Your task to perform on an android device: Go to Amazon Image 0: 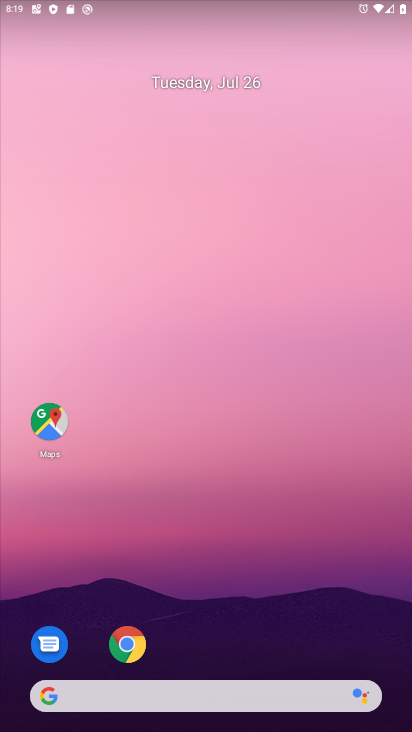
Step 0: drag from (232, 631) to (252, 231)
Your task to perform on an android device: Go to Amazon Image 1: 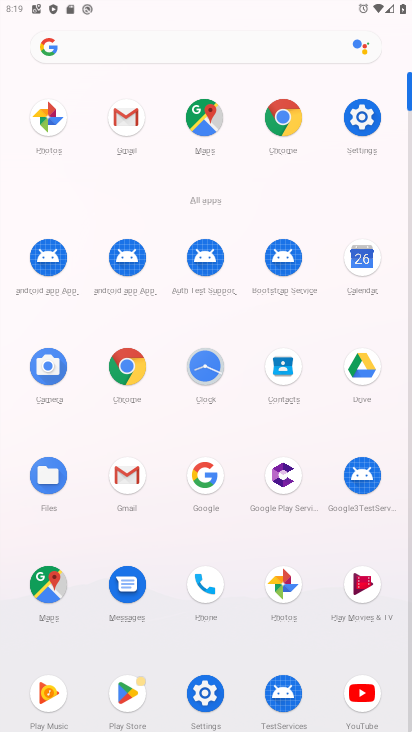
Step 1: click (123, 380)
Your task to perform on an android device: Go to Amazon Image 2: 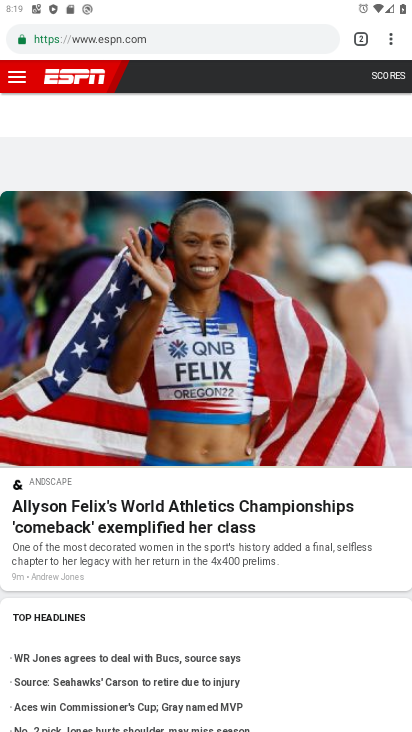
Step 2: click (391, 43)
Your task to perform on an android device: Go to Amazon Image 3: 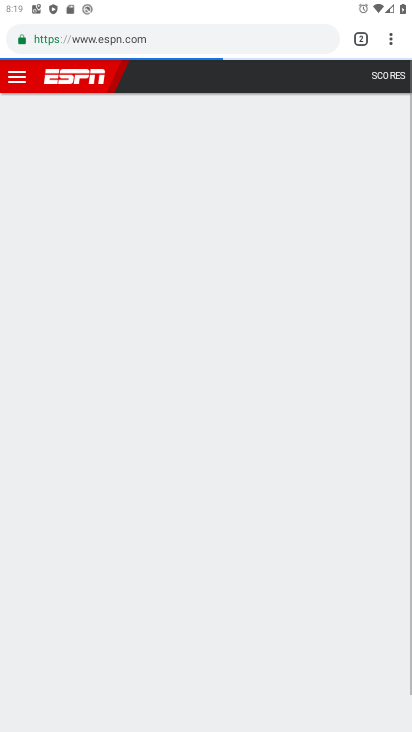
Step 3: click (391, 43)
Your task to perform on an android device: Go to Amazon Image 4: 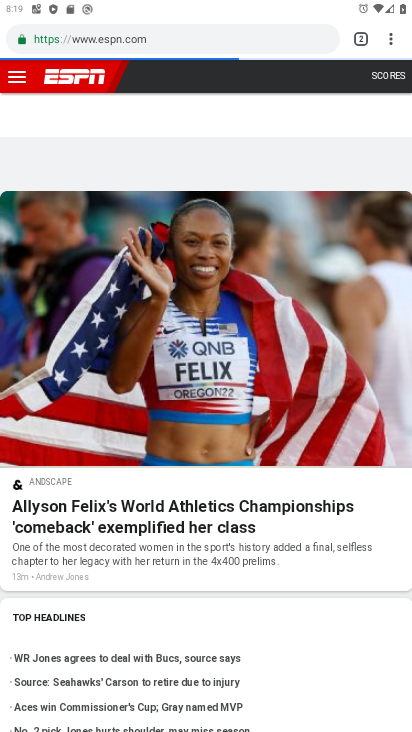
Step 4: click (391, 43)
Your task to perform on an android device: Go to Amazon Image 5: 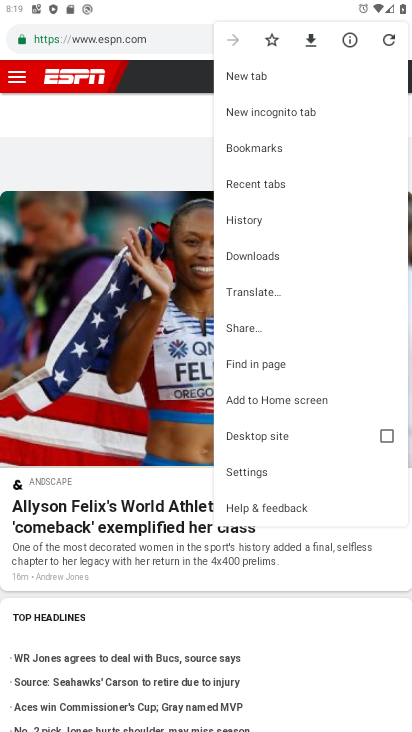
Step 5: click (239, 74)
Your task to perform on an android device: Go to Amazon Image 6: 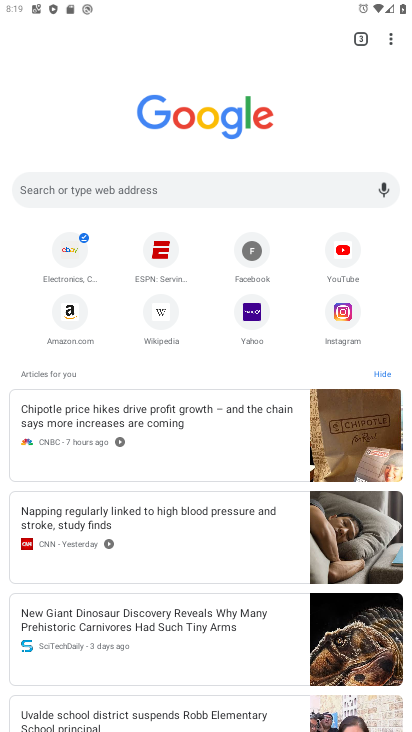
Step 6: click (57, 314)
Your task to perform on an android device: Go to Amazon Image 7: 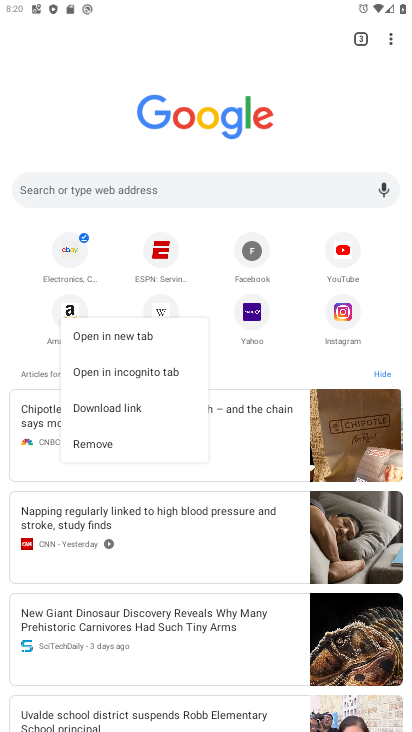
Step 7: click (67, 304)
Your task to perform on an android device: Go to Amazon Image 8: 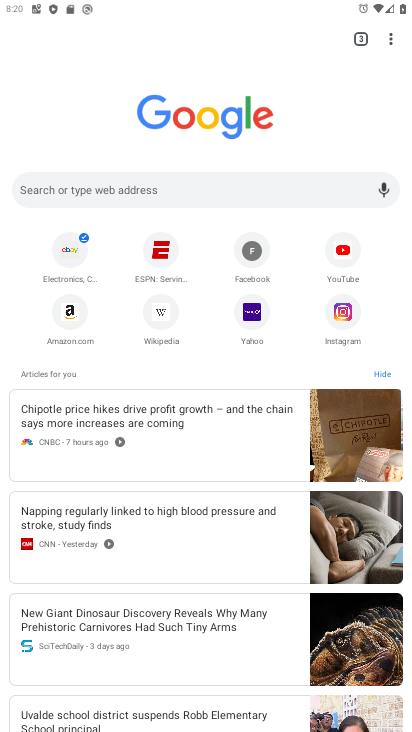
Step 8: click (67, 315)
Your task to perform on an android device: Go to Amazon Image 9: 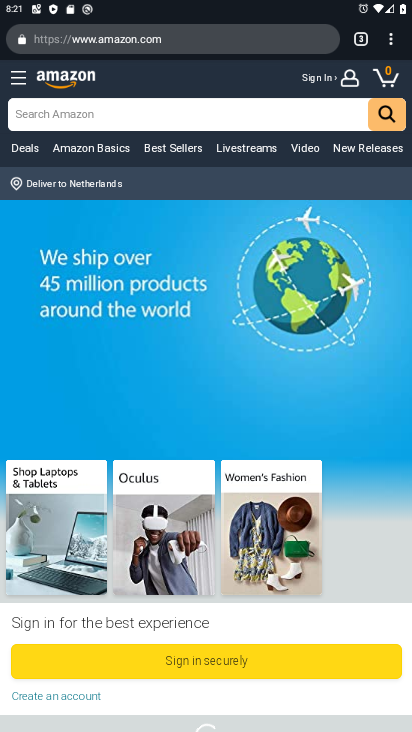
Step 9: task complete